Your task to perform on an android device: Open the map Image 0: 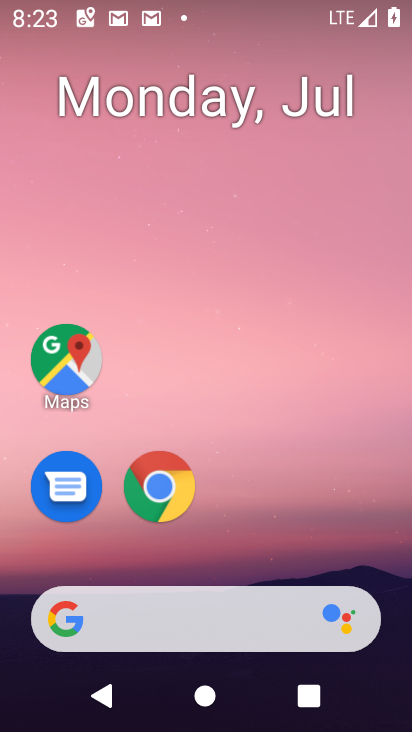
Step 0: drag from (378, 550) to (362, 226)
Your task to perform on an android device: Open the map Image 1: 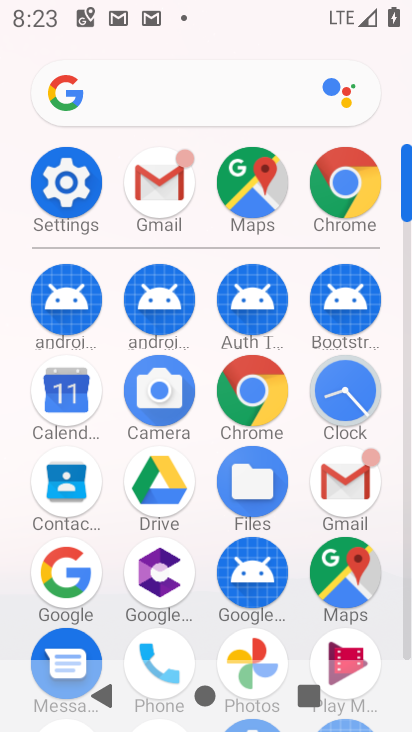
Step 1: click (349, 564)
Your task to perform on an android device: Open the map Image 2: 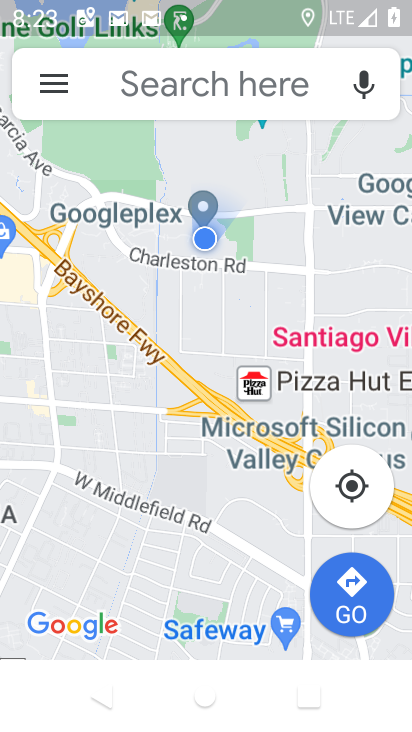
Step 2: task complete